Your task to perform on an android device: Do I have any events today? Image 0: 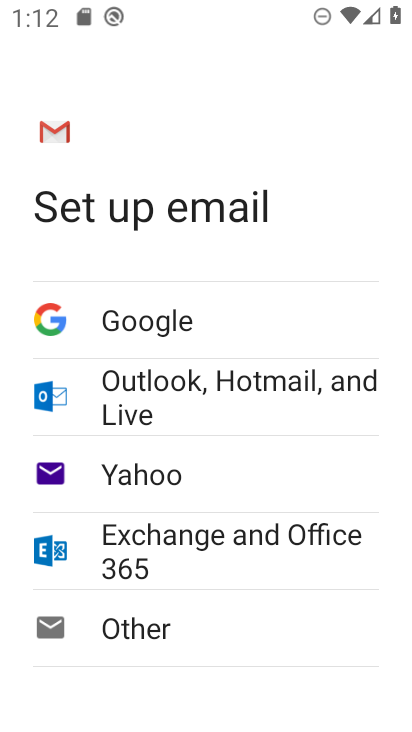
Step 0: press home button
Your task to perform on an android device: Do I have any events today? Image 1: 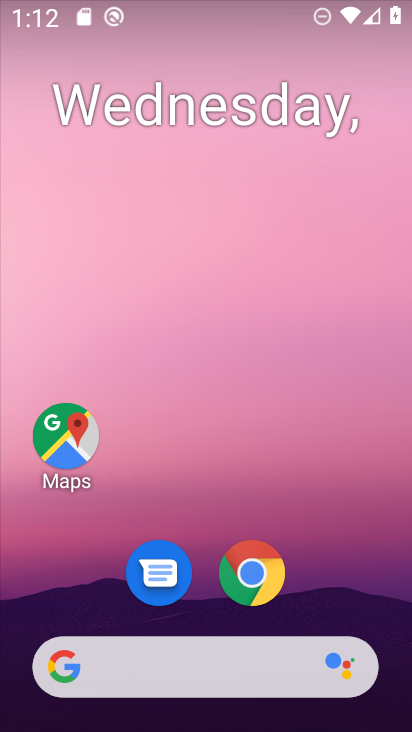
Step 1: drag from (213, 619) to (331, 35)
Your task to perform on an android device: Do I have any events today? Image 2: 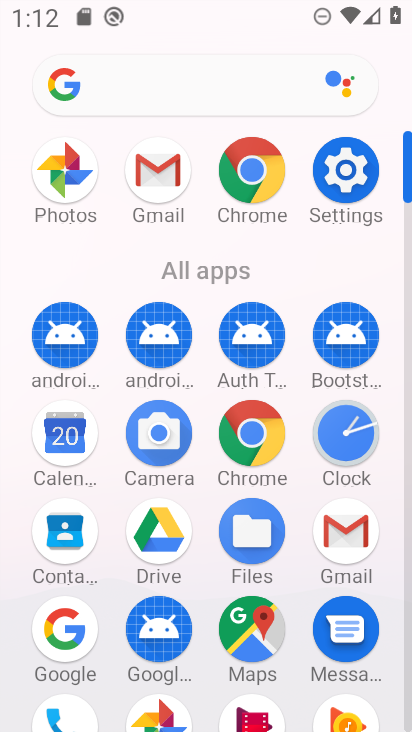
Step 2: click (62, 444)
Your task to perform on an android device: Do I have any events today? Image 3: 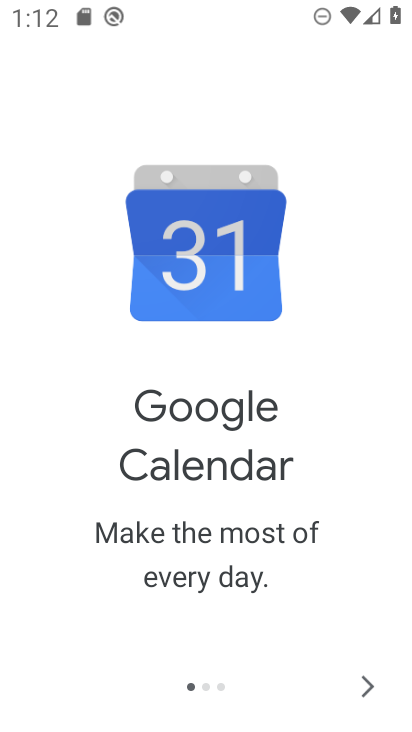
Step 3: click (372, 691)
Your task to perform on an android device: Do I have any events today? Image 4: 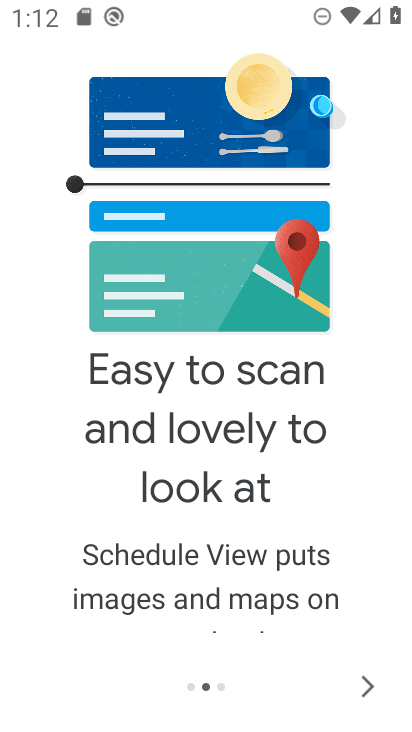
Step 4: click (372, 691)
Your task to perform on an android device: Do I have any events today? Image 5: 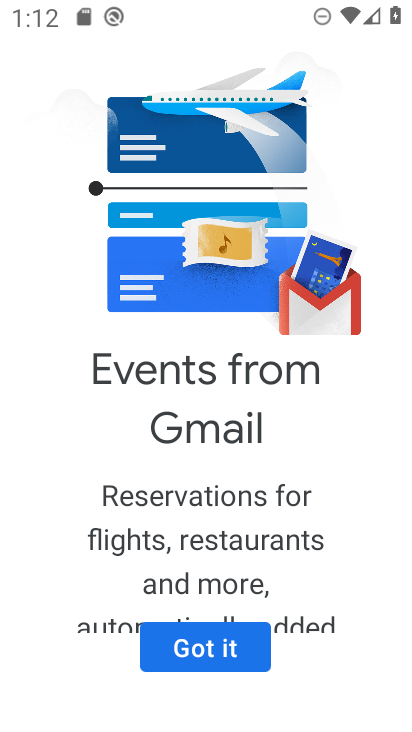
Step 5: click (371, 690)
Your task to perform on an android device: Do I have any events today? Image 6: 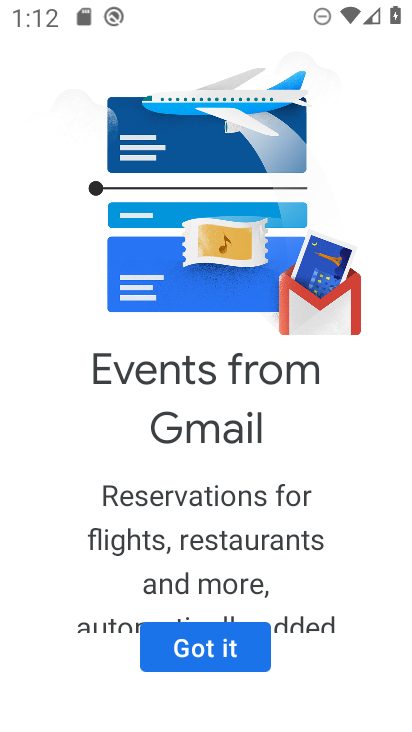
Step 6: click (205, 651)
Your task to perform on an android device: Do I have any events today? Image 7: 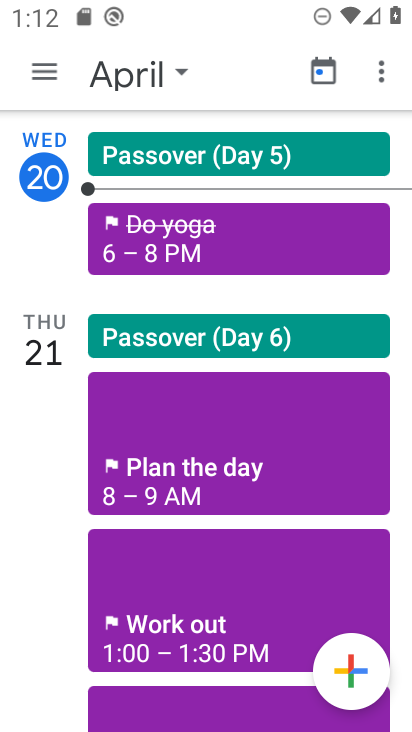
Step 7: click (57, 74)
Your task to perform on an android device: Do I have any events today? Image 8: 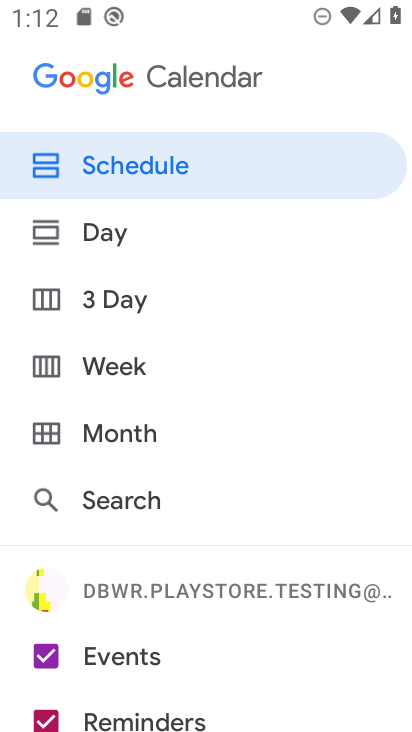
Step 8: drag from (123, 567) to (232, 187)
Your task to perform on an android device: Do I have any events today? Image 9: 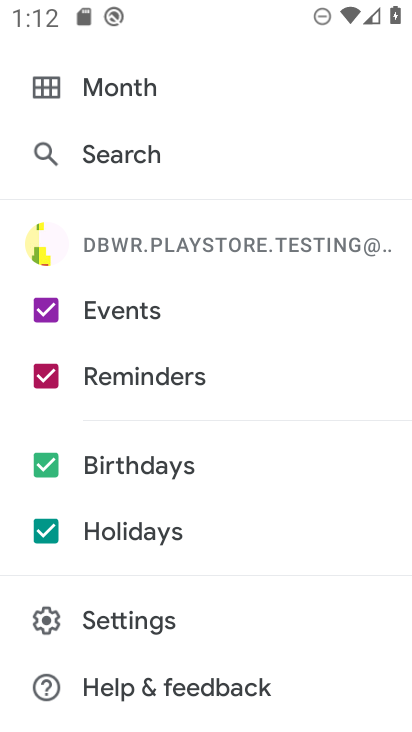
Step 9: click (53, 379)
Your task to perform on an android device: Do I have any events today? Image 10: 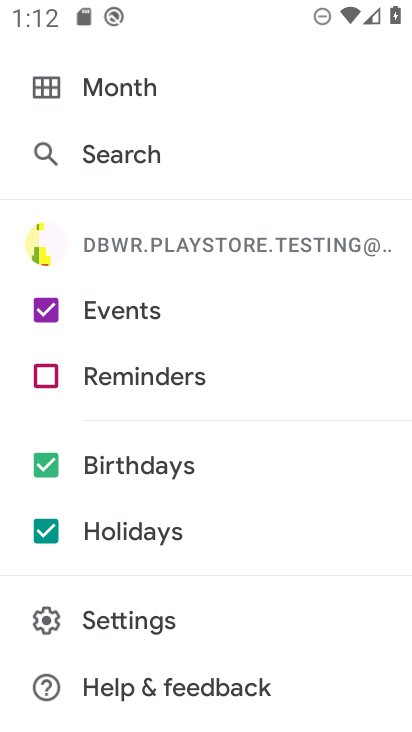
Step 10: click (49, 461)
Your task to perform on an android device: Do I have any events today? Image 11: 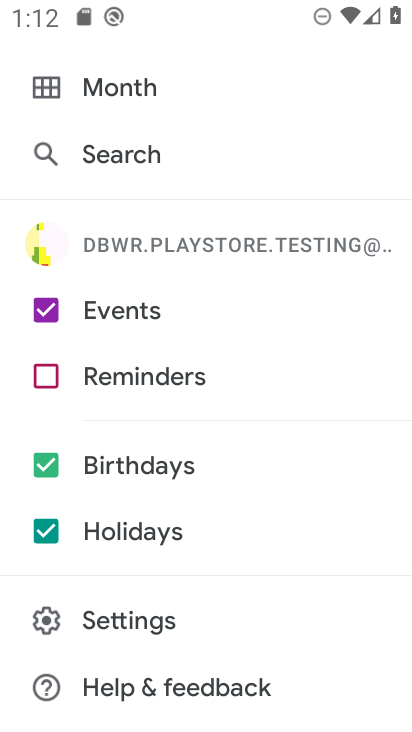
Step 11: click (48, 528)
Your task to perform on an android device: Do I have any events today? Image 12: 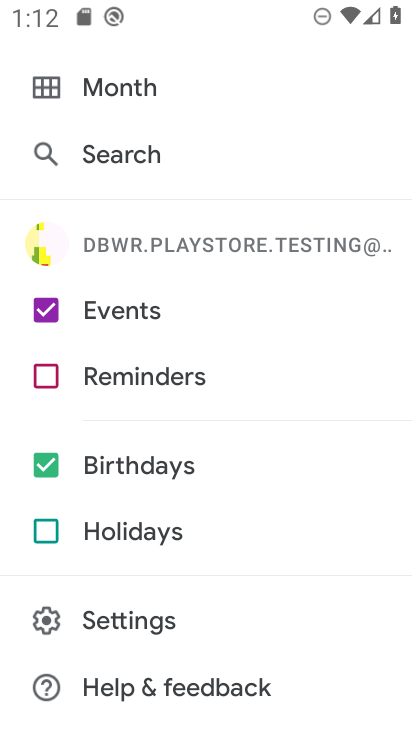
Step 12: click (41, 466)
Your task to perform on an android device: Do I have any events today? Image 13: 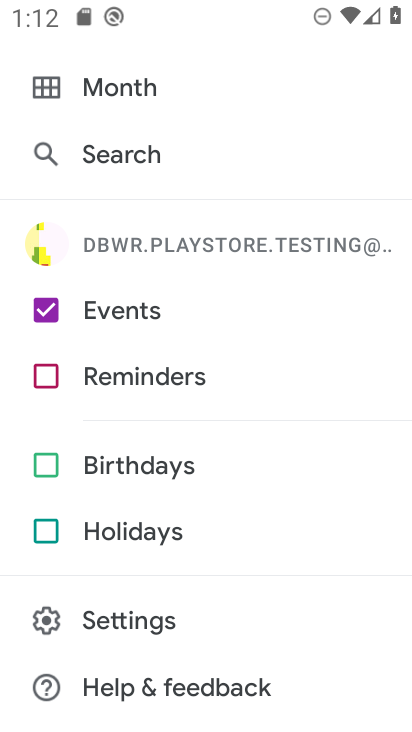
Step 13: drag from (248, 195) to (222, 591)
Your task to perform on an android device: Do I have any events today? Image 14: 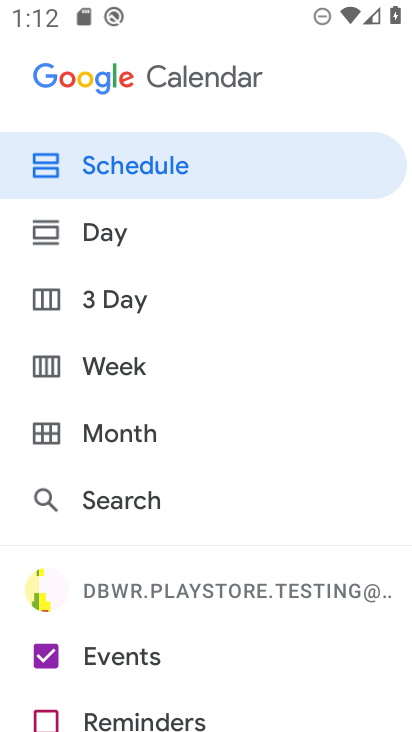
Step 14: click (128, 242)
Your task to perform on an android device: Do I have any events today? Image 15: 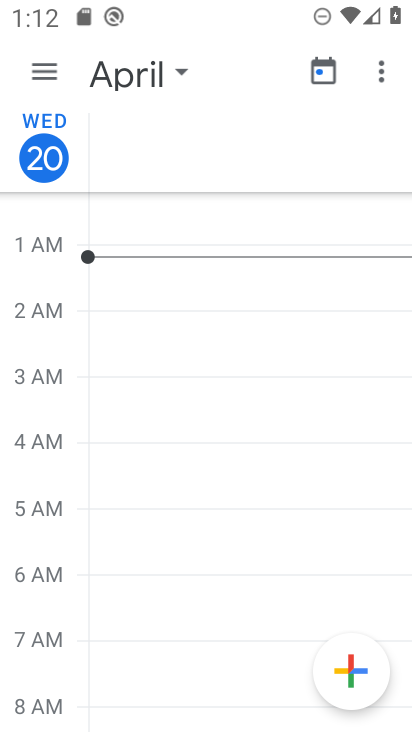
Step 15: task complete